Your task to perform on an android device: Go to location settings Image 0: 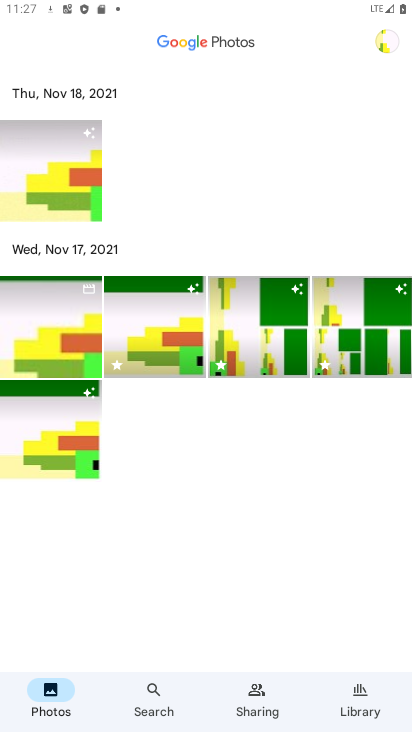
Step 0: press home button
Your task to perform on an android device: Go to location settings Image 1: 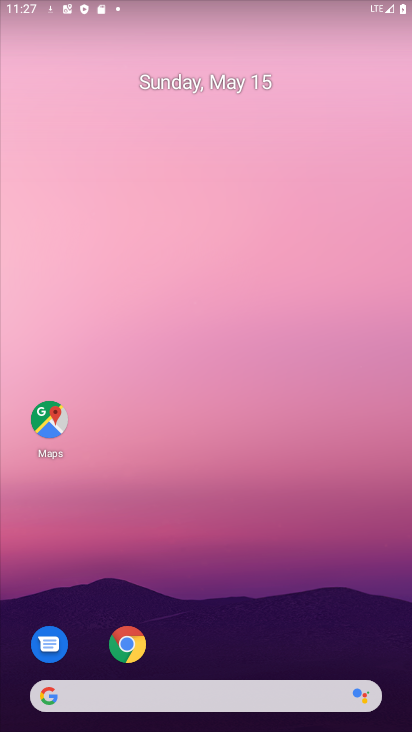
Step 1: drag from (256, 713) to (218, 202)
Your task to perform on an android device: Go to location settings Image 2: 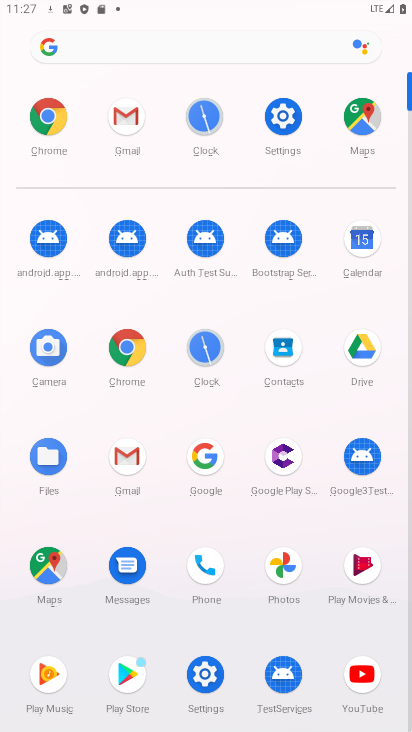
Step 2: click (279, 106)
Your task to perform on an android device: Go to location settings Image 3: 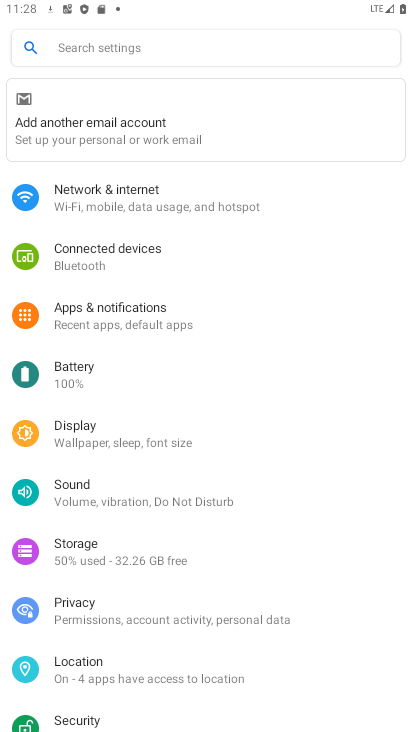
Step 3: click (89, 664)
Your task to perform on an android device: Go to location settings Image 4: 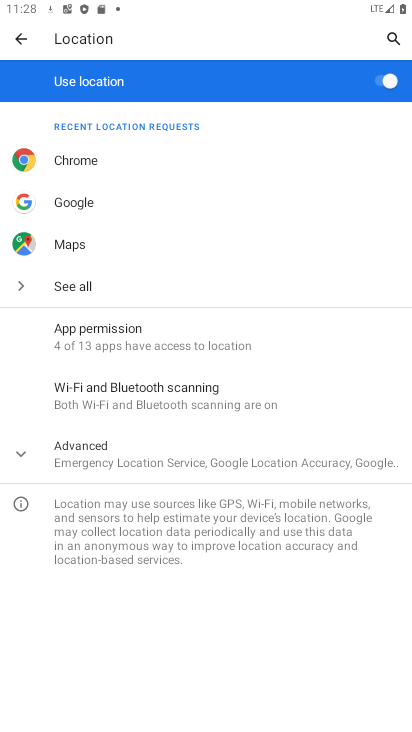
Step 4: task complete